Your task to perform on an android device: change text size in settings app Image 0: 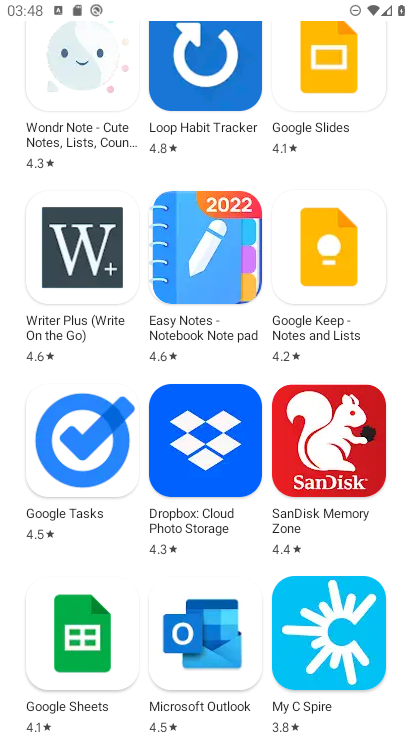
Step 0: press home button
Your task to perform on an android device: change text size in settings app Image 1: 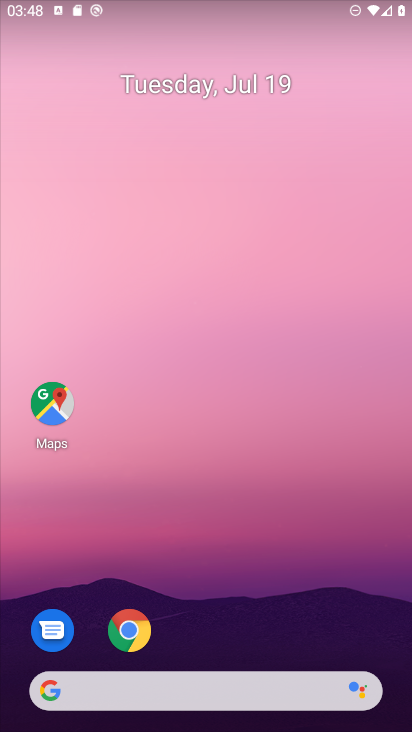
Step 1: drag from (375, 636) to (312, 100)
Your task to perform on an android device: change text size in settings app Image 2: 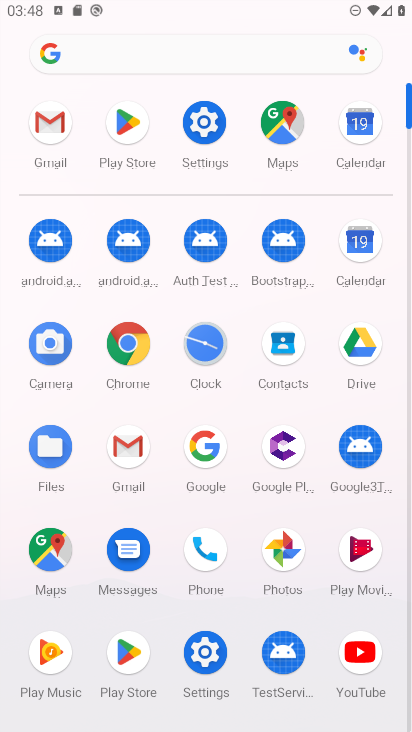
Step 2: click (204, 654)
Your task to perform on an android device: change text size in settings app Image 3: 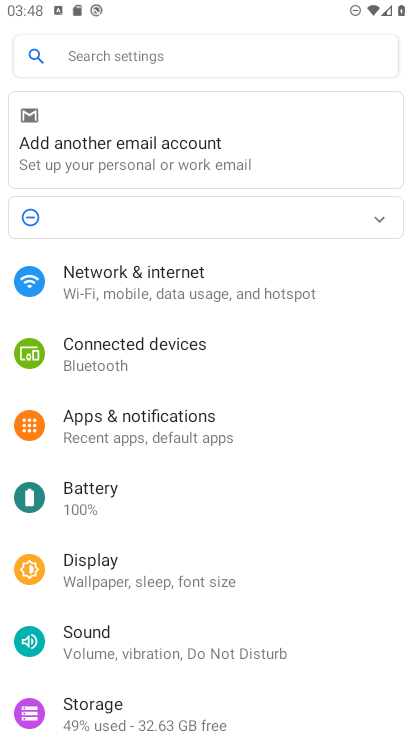
Step 3: drag from (322, 583) to (299, 282)
Your task to perform on an android device: change text size in settings app Image 4: 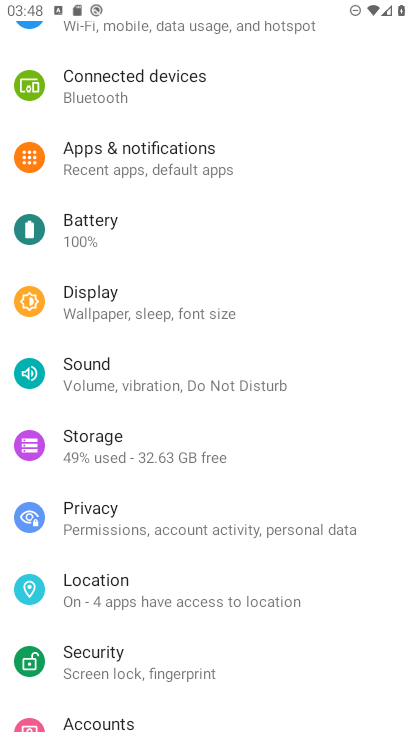
Step 4: click (99, 310)
Your task to perform on an android device: change text size in settings app Image 5: 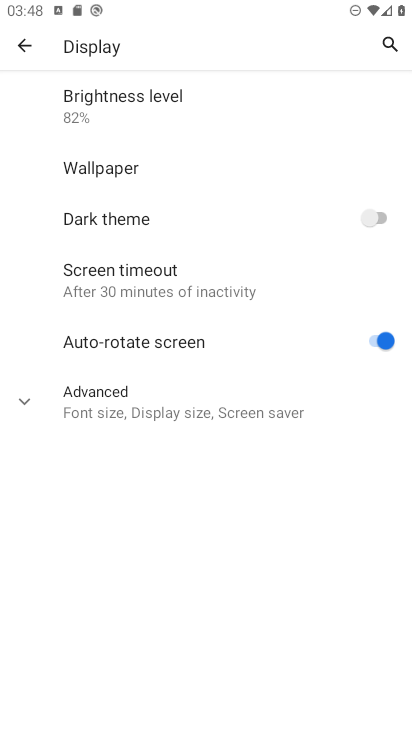
Step 5: click (20, 403)
Your task to perform on an android device: change text size in settings app Image 6: 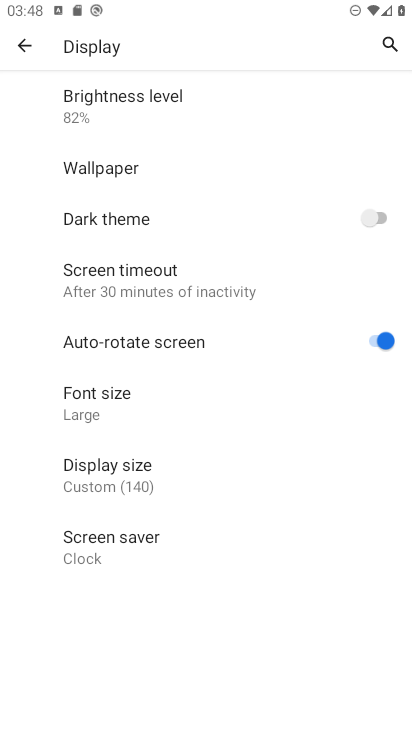
Step 6: click (89, 399)
Your task to perform on an android device: change text size in settings app Image 7: 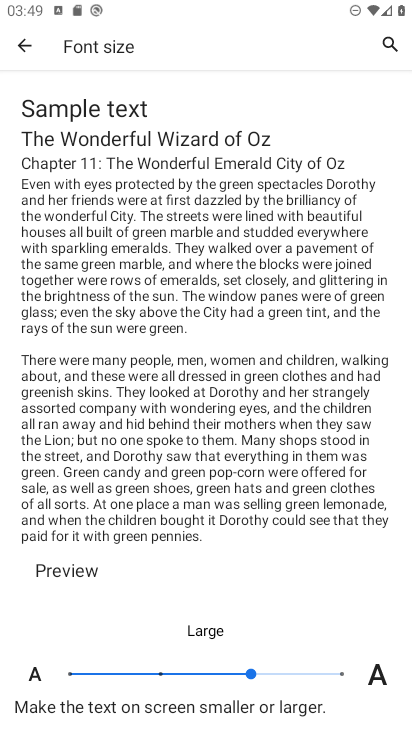
Step 7: click (341, 666)
Your task to perform on an android device: change text size in settings app Image 8: 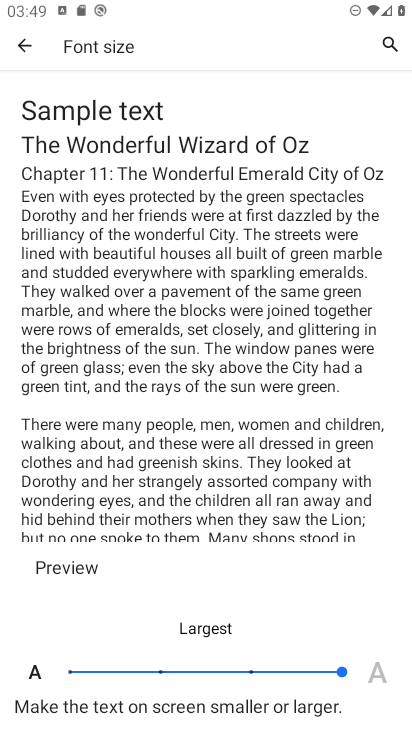
Step 8: task complete